Your task to perform on an android device: Open ESPN.com Image 0: 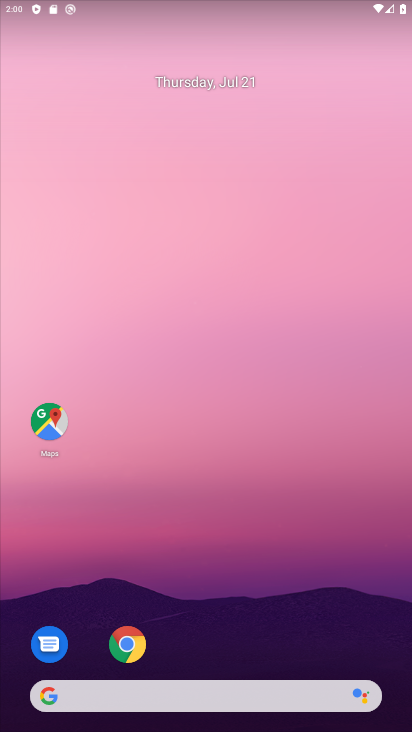
Step 0: drag from (215, 641) to (168, 155)
Your task to perform on an android device: Open ESPN.com Image 1: 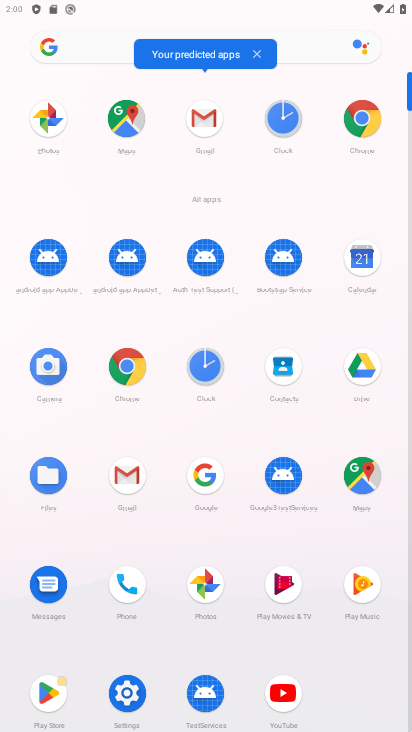
Step 1: click (358, 118)
Your task to perform on an android device: Open ESPN.com Image 2: 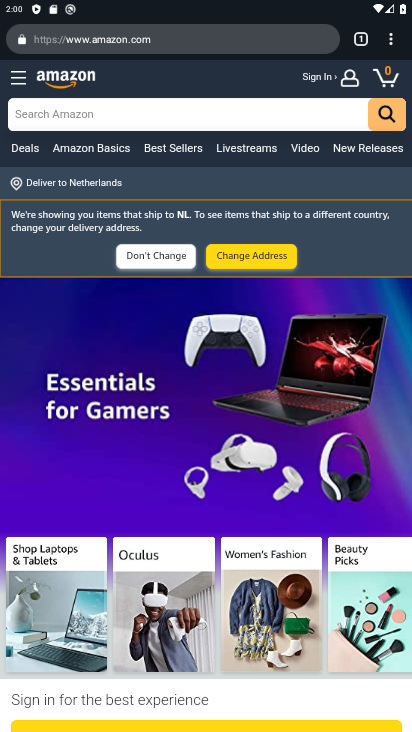
Step 2: click (367, 38)
Your task to perform on an android device: Open ESPN.com Image 3: 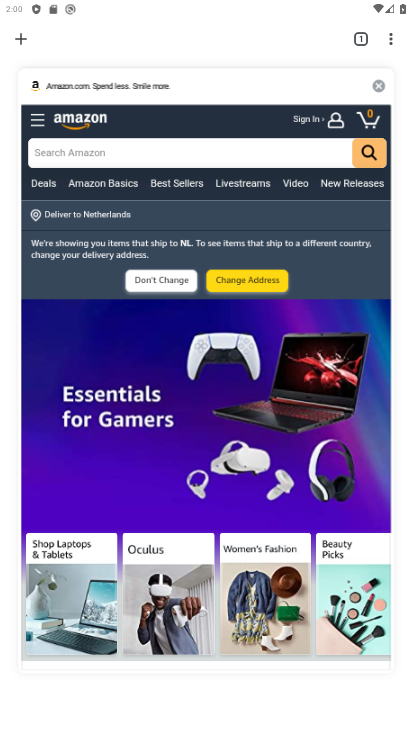
Step 3: click (20, 31)
Your task to perform on an android device: Open ESPN.com Image 4: 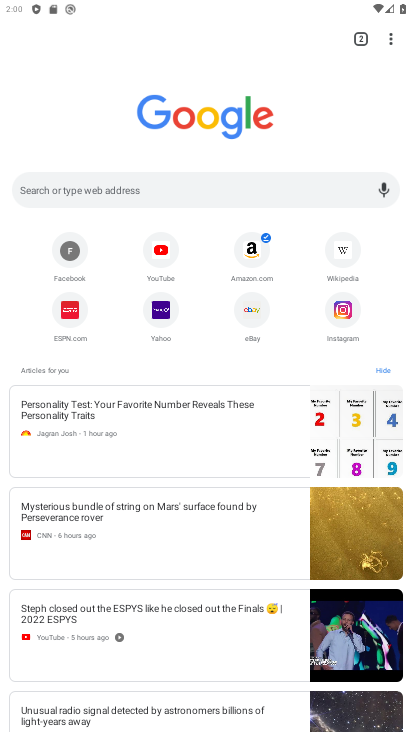
Step 4: click (64, 322)
Your task to perform on an android device: Open ESPN.com Image 5: 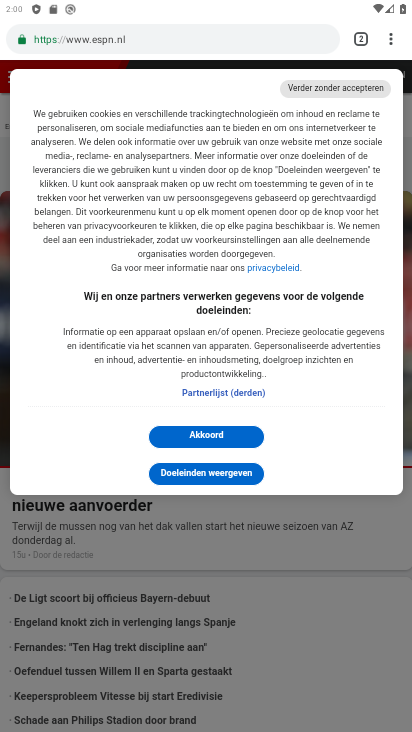
Step 5: task complete